Your task to perform on an android device: Open eBay Image 0: 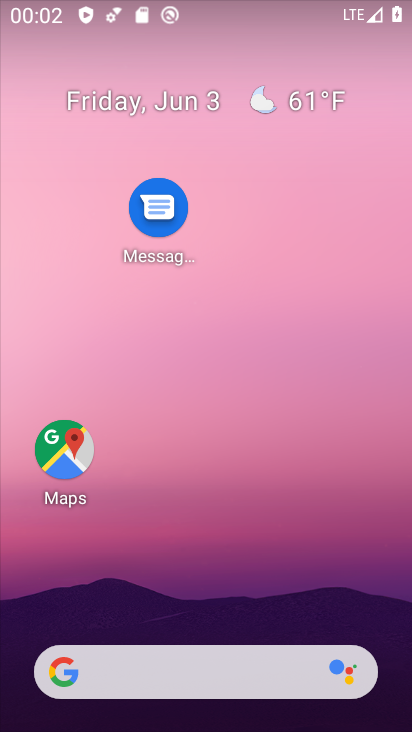
Step 0: drag from (234, 640) to (247, 23)
Your task to perform on an android device: Open eBay Image 1: 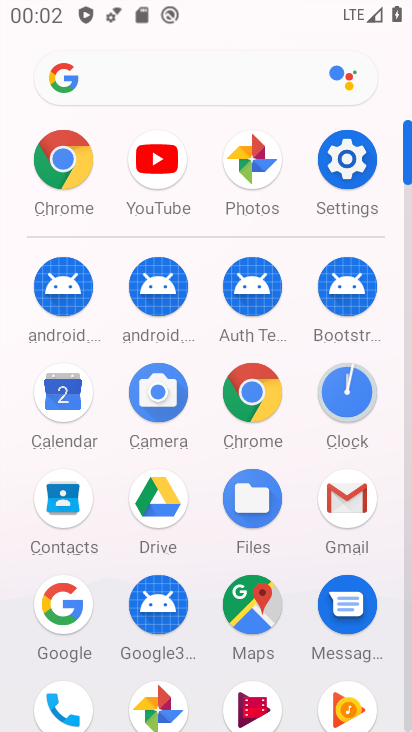
Step 1: click (250, 384)
Your task to perform on an android device: Open eBay Image 2: 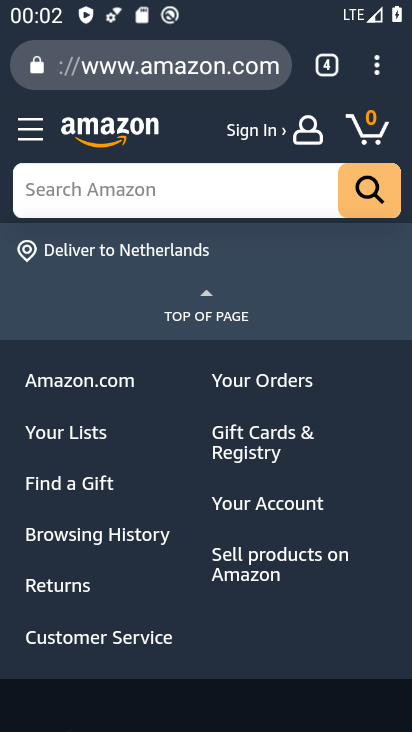
Step 2: click (324, 79)
Your task to perform on an android device: Open eBay Image 3: 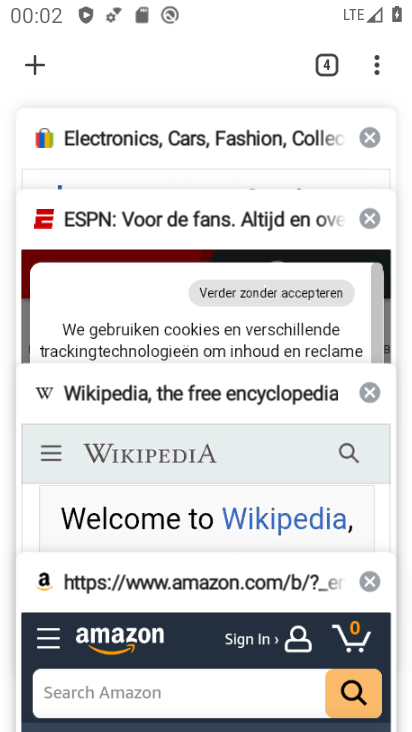
Step 3: click (25, 55)
Your task to perform on an android device: Open eBay Image 4: 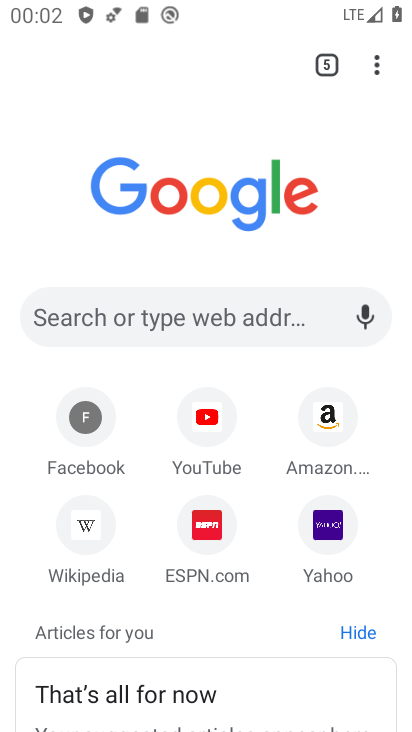
Step 4: click (189, 322)
Your task to perform on an android device: Open eBay Image 5: 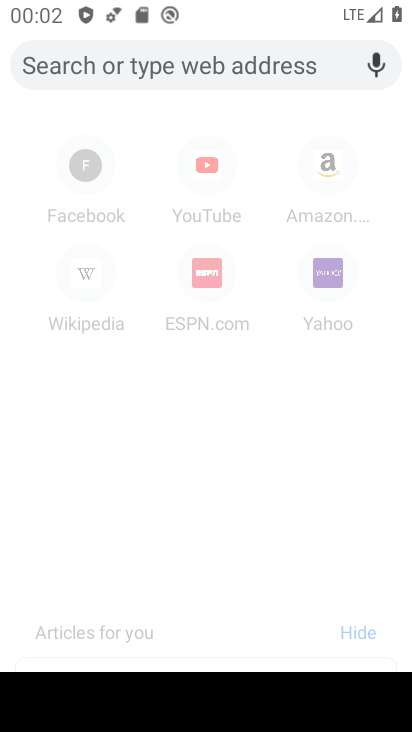
Step 5: type "ebay"
Your task to perform on an android device: Open eBay Image 6: 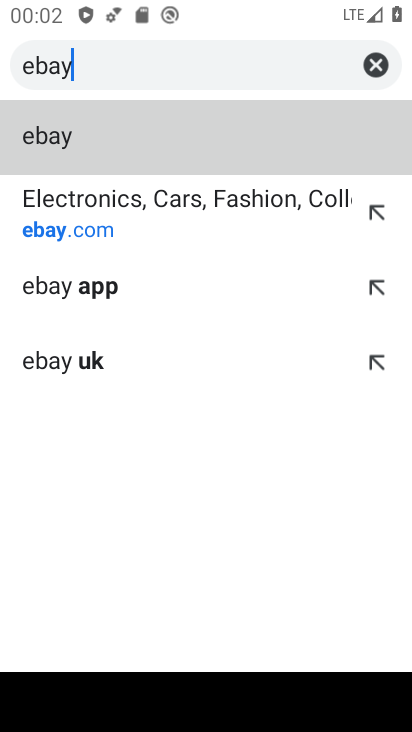
Step 6: type ""
Your task to perform on an android device: Open eBay Image 7: 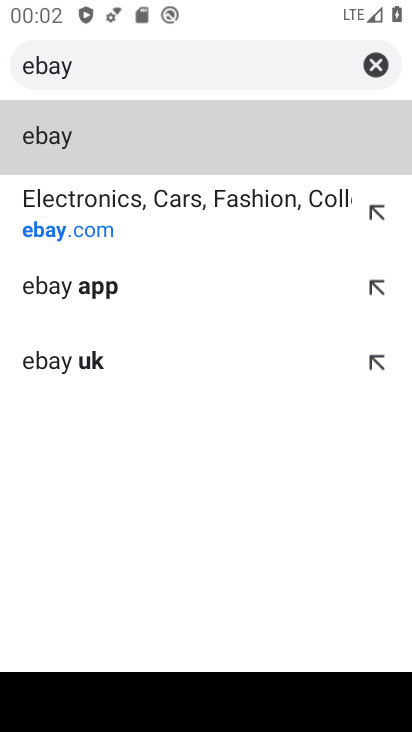
Step 7: click (98, 198)
Your task to perform on an android device: Open eBay Image 8: 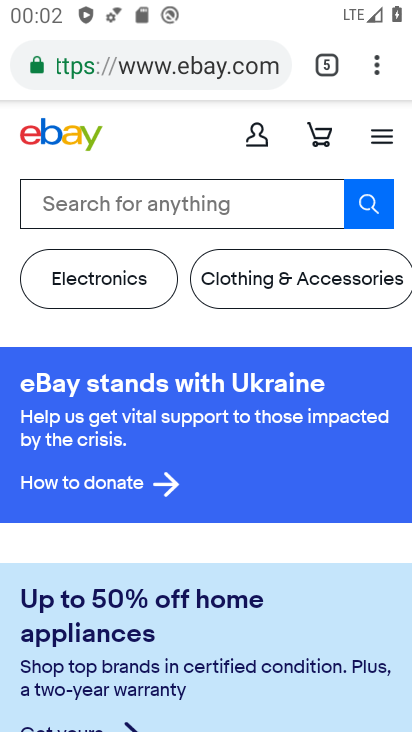
Step 8: task complete